Your task to perform on an android device: Search for flights from London to Paris Image 0: 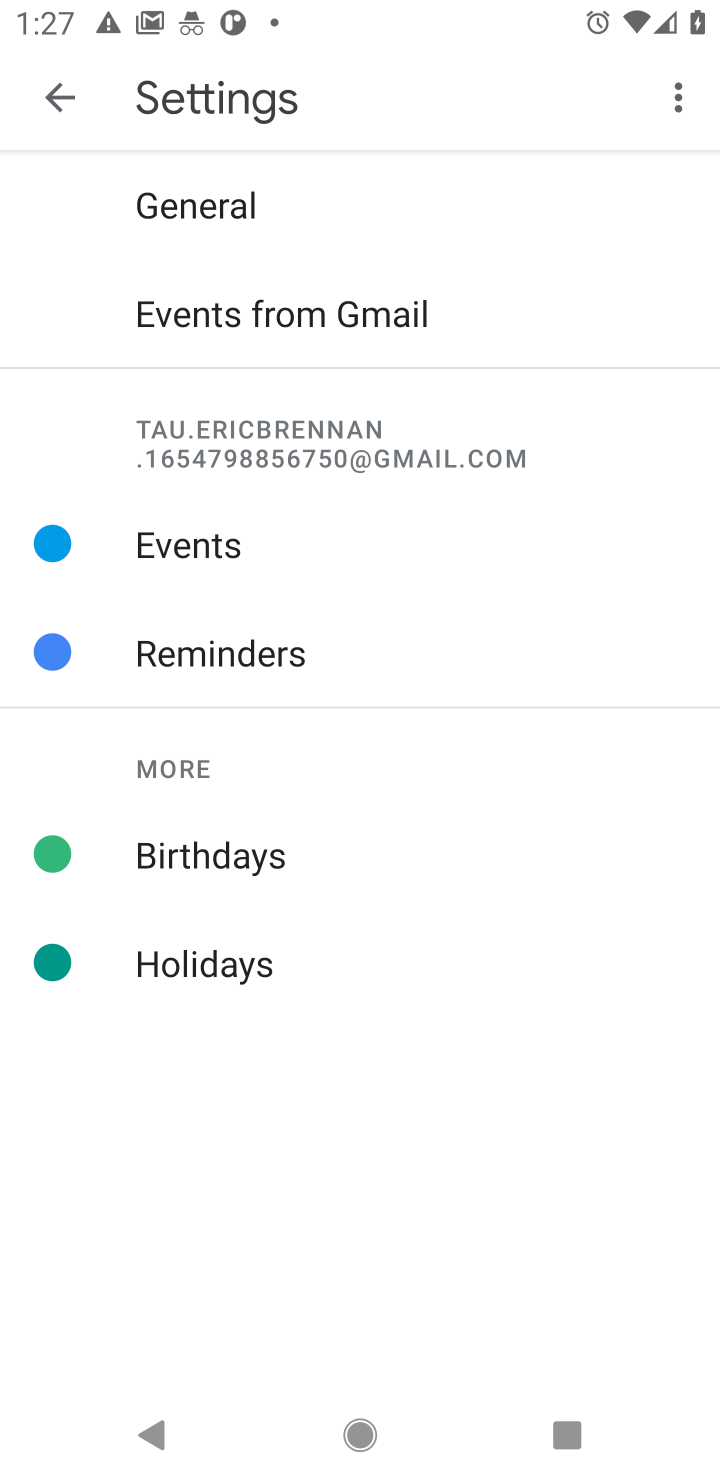
Step 0: press home button
Your task to perform on an android device: Search for flights from London to Paris Image 1: 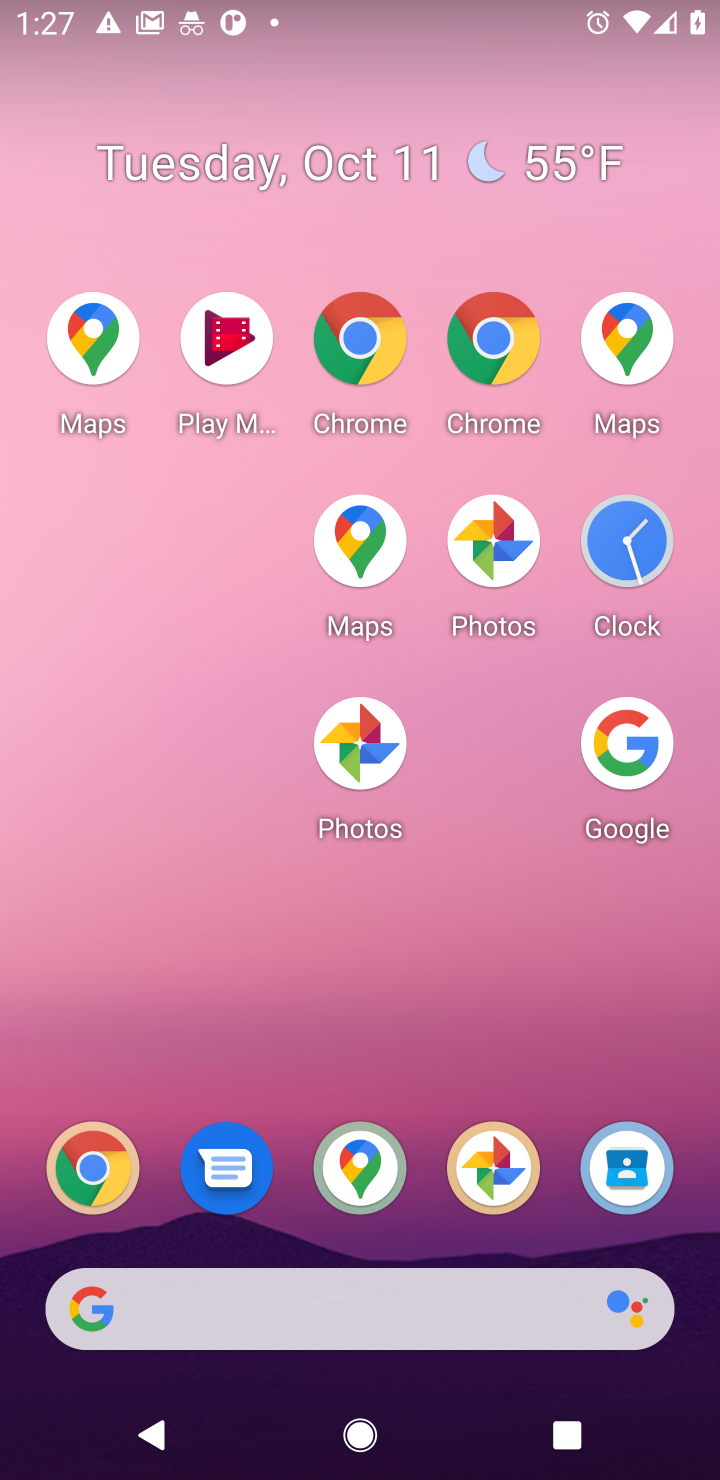
Step 1: click (647, 773)
Your task to perform on an android device: Search for flights from London to Paris Image 2: 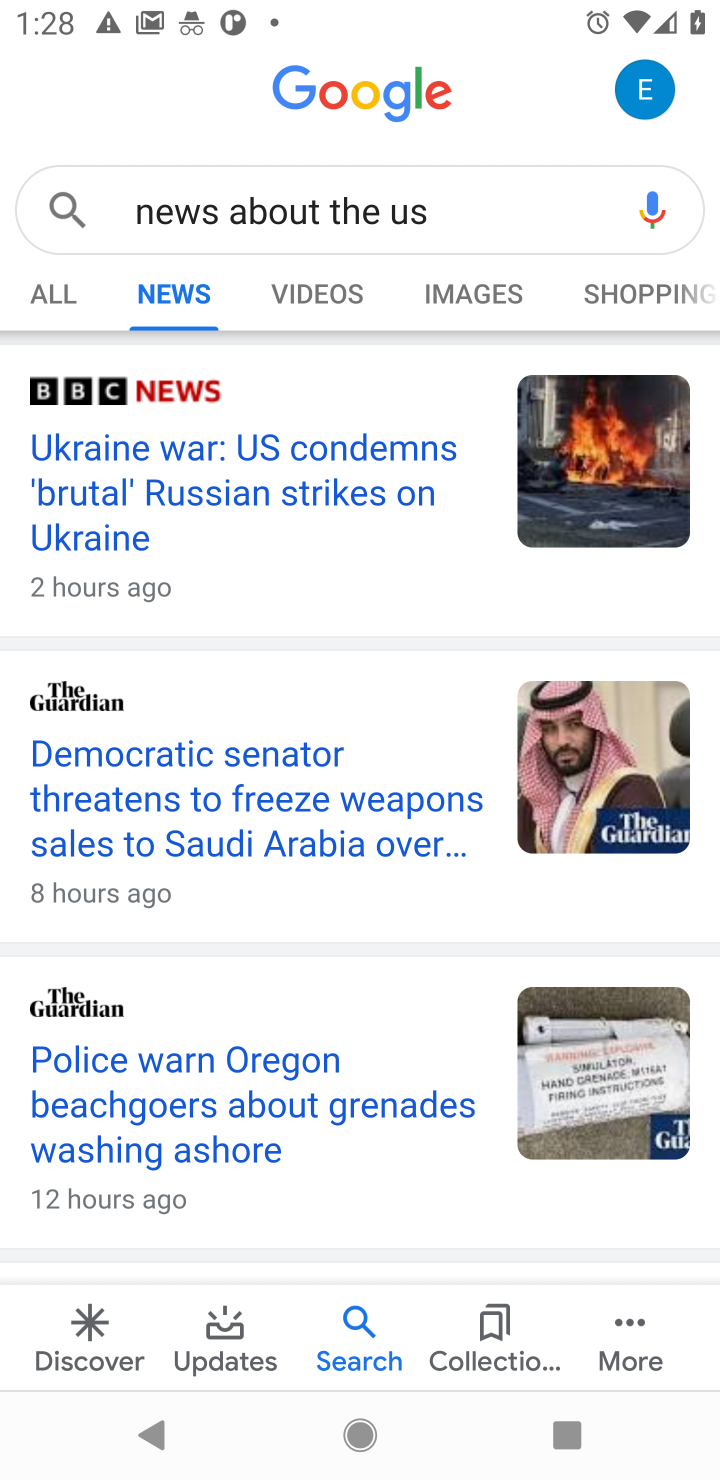
Step 2: click (511, 208)
Your task to perform on an android device: Search for flights from London to Paris Image 3: 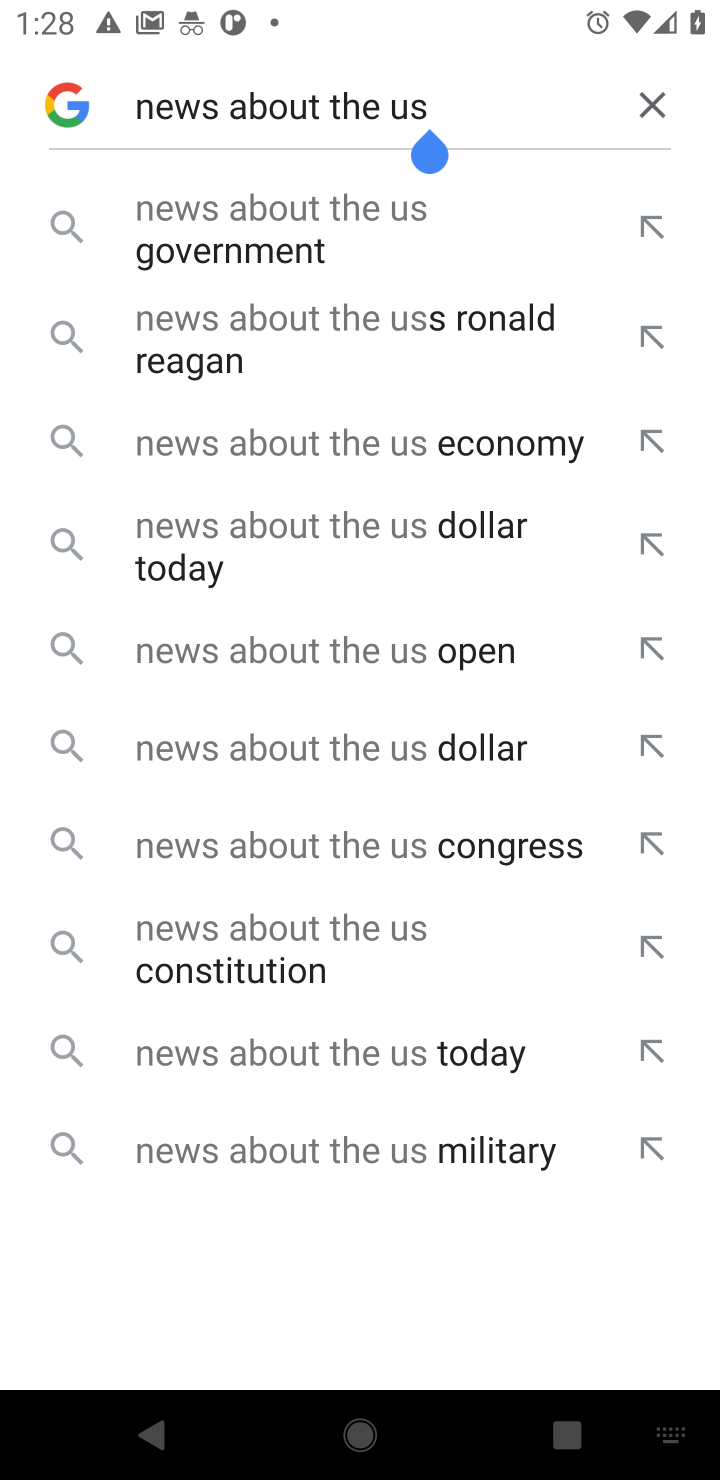
Step 3: click (648, 94)
Your task to perform on an android device: Search for flights from London to Paris Image 4: 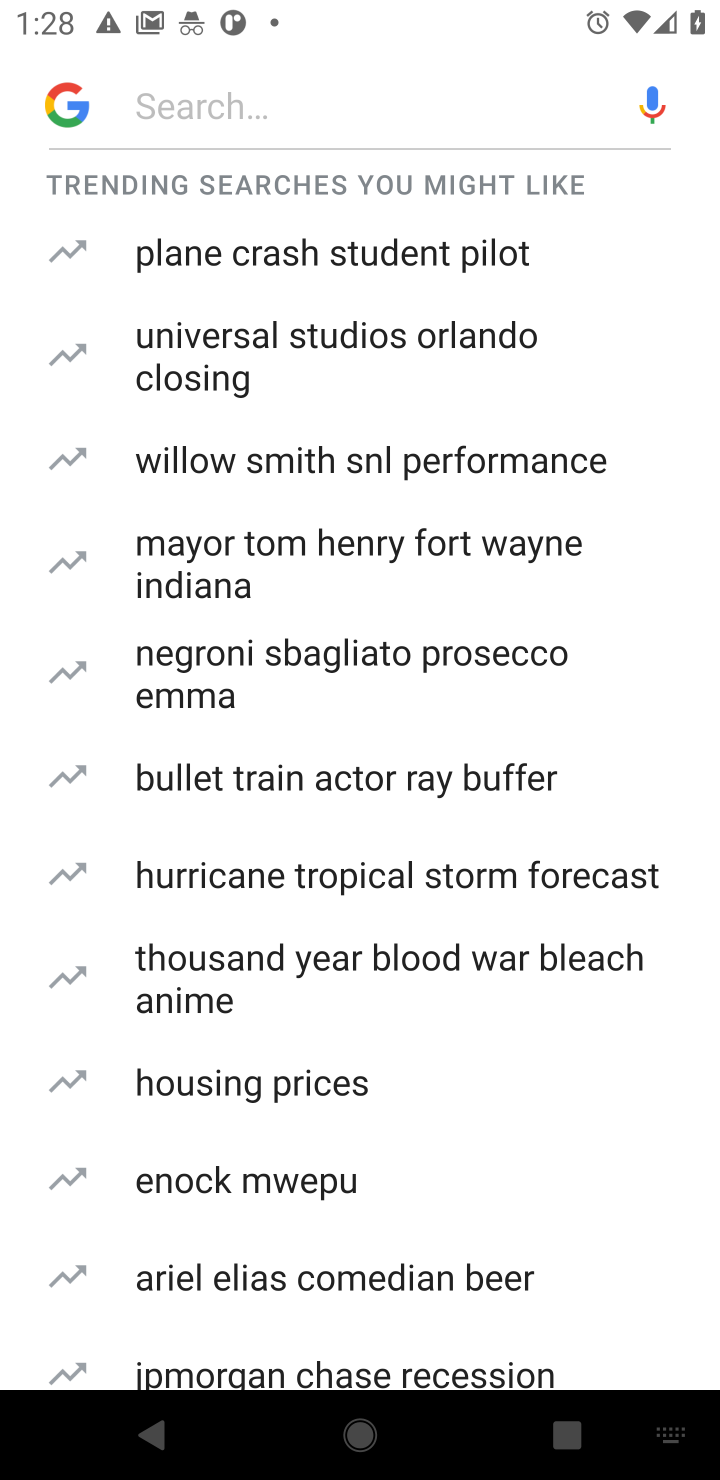
Step 4: type "flights from London to Paris"
Your task to perform on an android device: Search for flights from London to Paris Image 5: 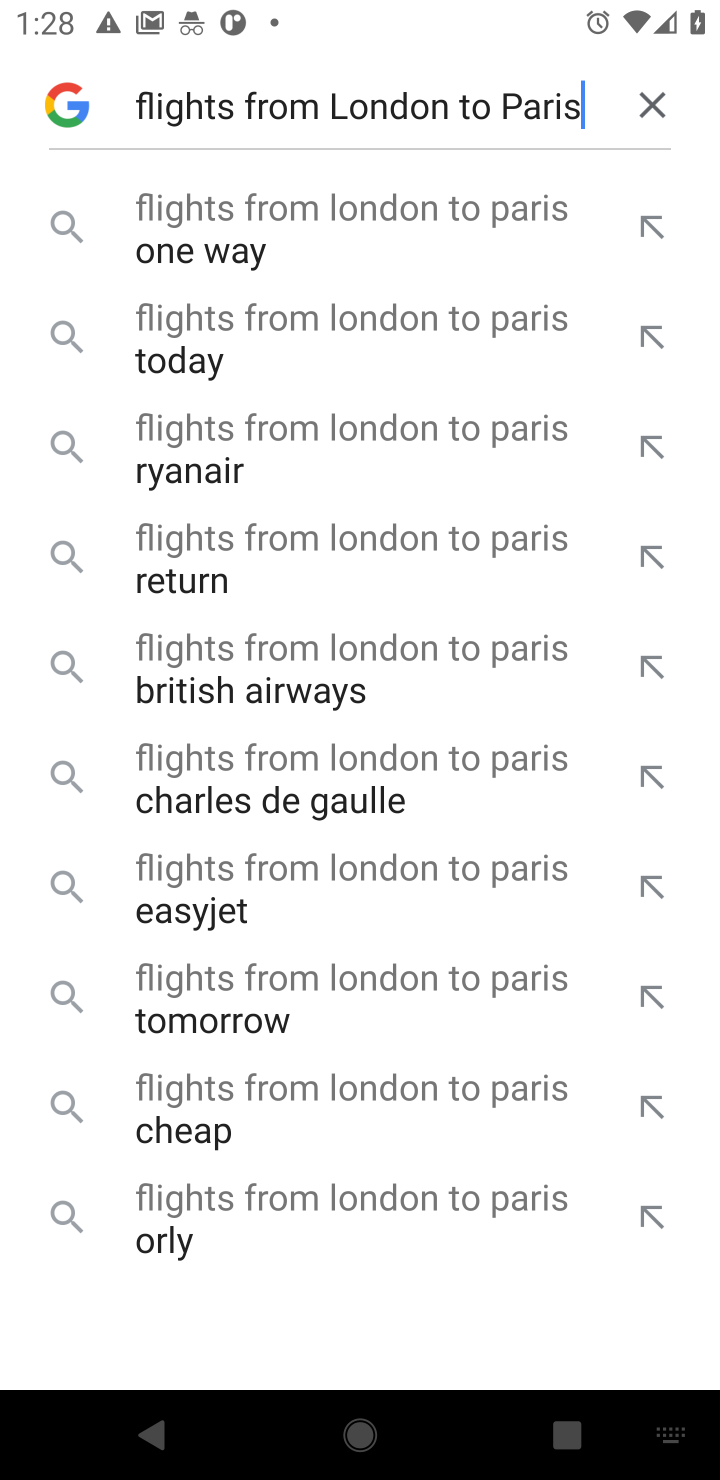
Step 5: click (433, 342)
Your task to perform on an android device: Search for flights from London to Paris Image 6: 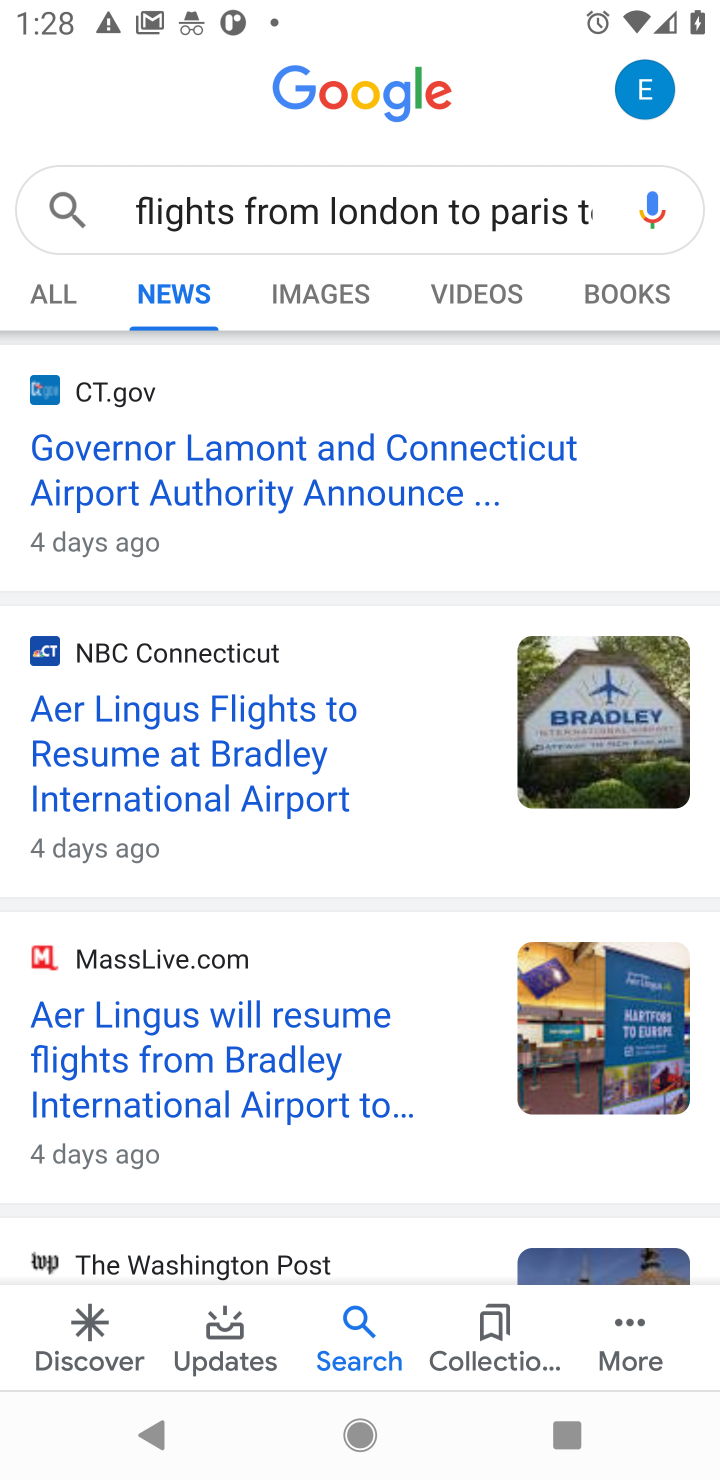
Step 6: click (45, 295)
Your task to perform on an android device: Search for flights from London to Paris Image 7: 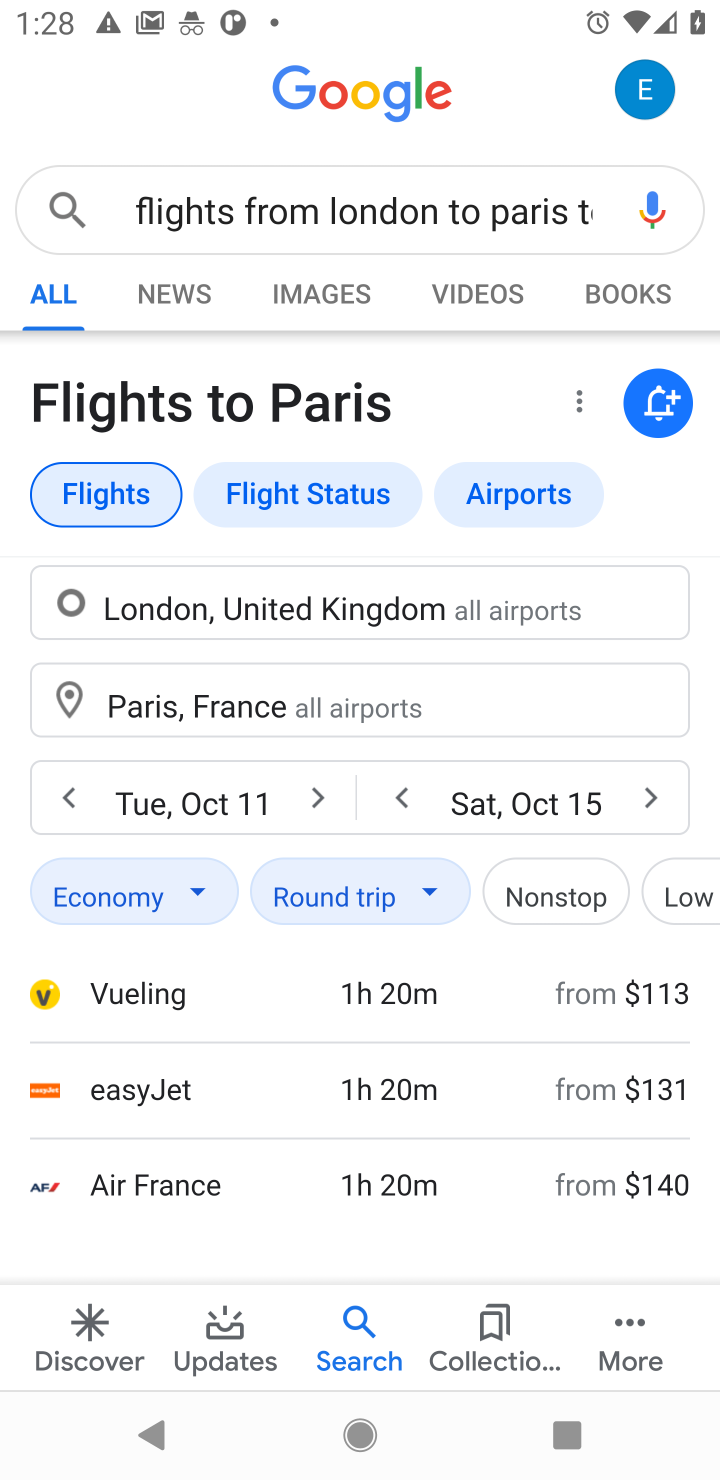
Step 7: task complete